Your task to perform on an android device: check battery use Image 0: 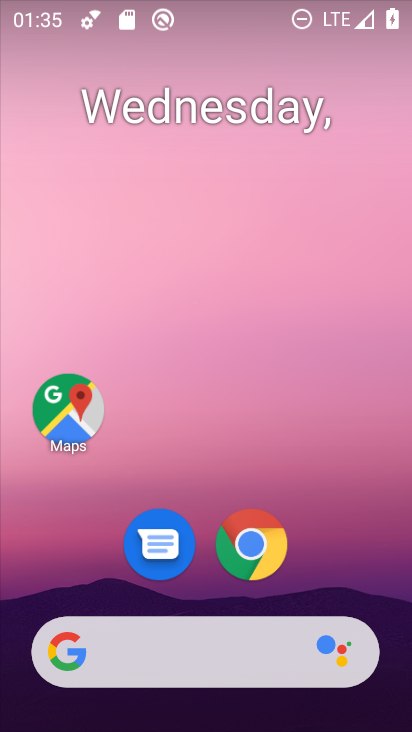
Step 0: drag from (337, 561) to (327, 14)
Your task to perform on an android device: check battery use Image 1: 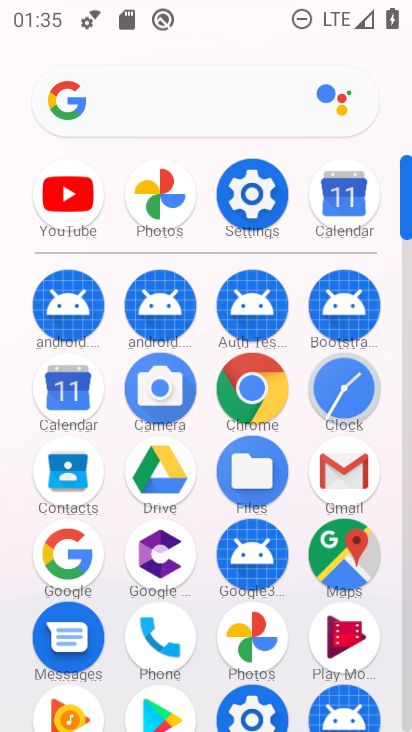
Step 1: click (237, 198)
Your task to perform on an android device: check battery use Image 2: 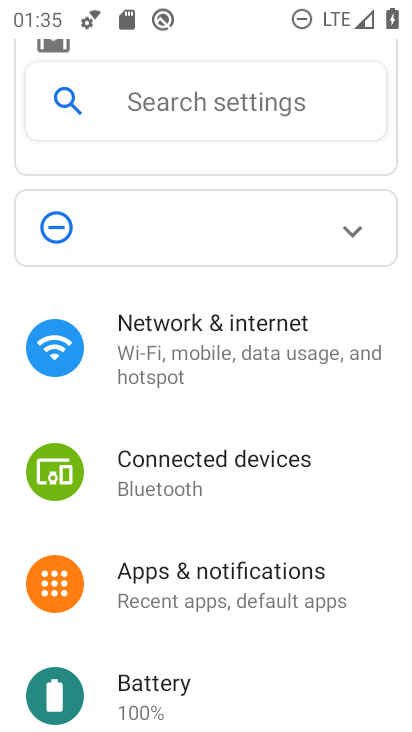
Step 2: drag from (190, 464) to (190, 401)
Your task to perform on an android device: check battery use Image 3: 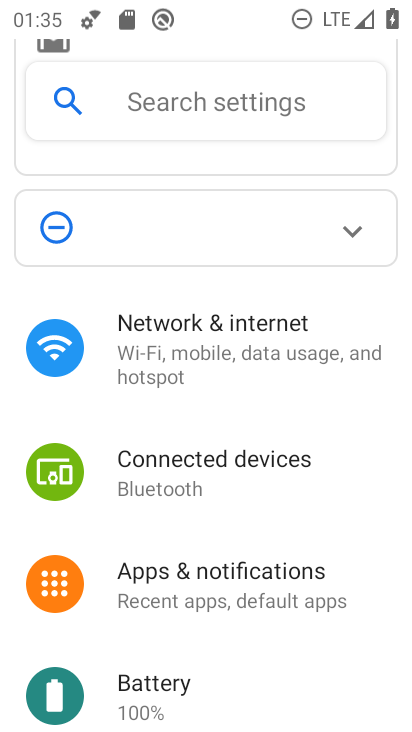
Step 3: drag from (196, 556) to (195, 400)
Your task to perform on an android device: check battery use Image 4: 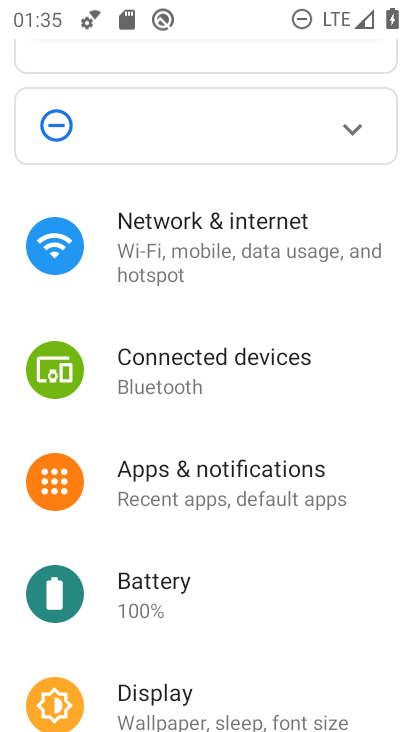
Step 4: drag from (232, 538) to (246, 347)
Your task to perform on an android device: check battery use Image 5: 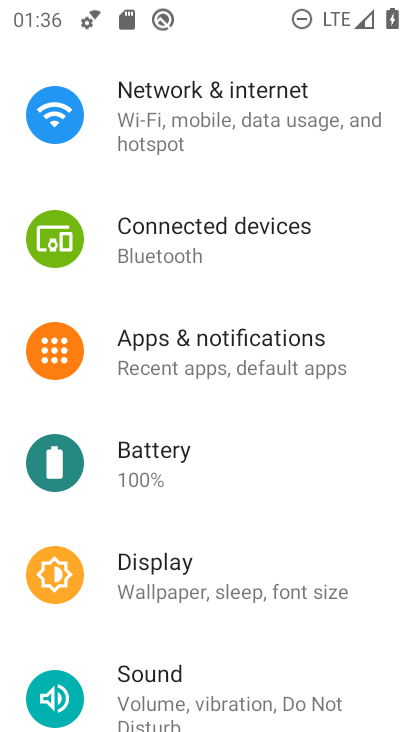
Step 5: click (149, 487)
Your task to perform on an android device: check battery use Image 6: 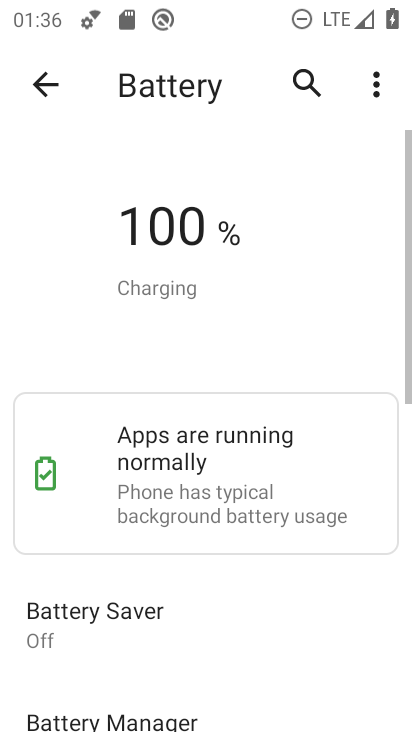
Step 6: click (374, 83)
Your task to perform on an android device: check battery use Image 7: 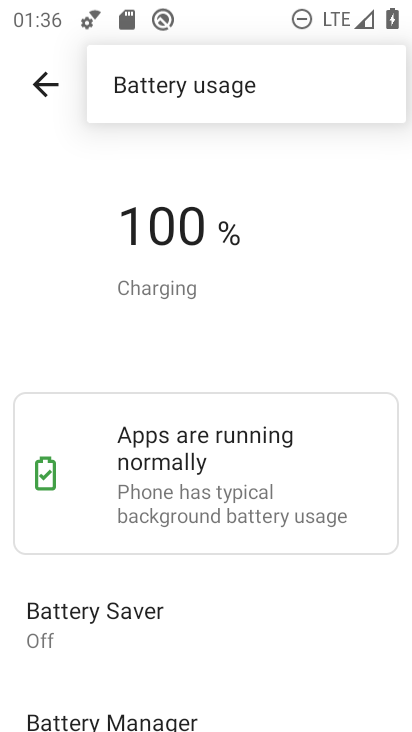
Step 7: click (340, 85)
Your task to perform on an android device: check battery use Image 8: 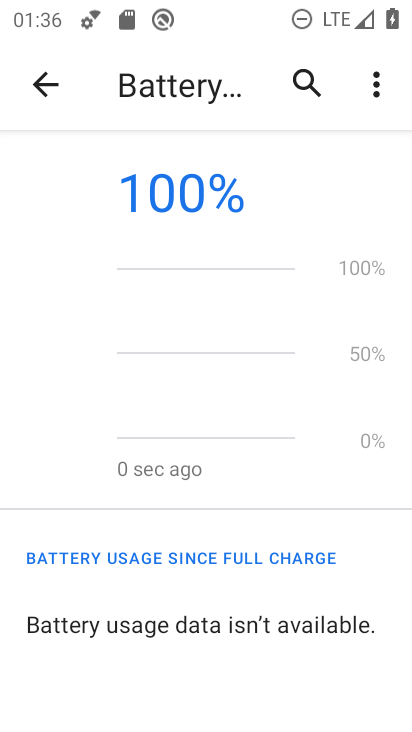
Step 8: task complete